Your task to perform on an android device: Open accessibility settings Image 0: 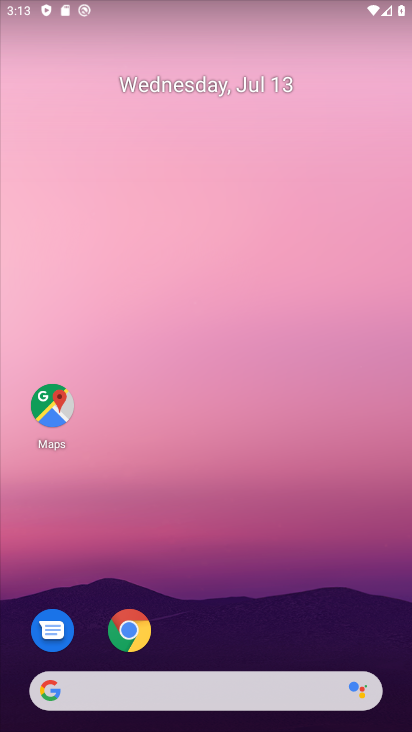
Step 0: drag from (220, 581) to (162, 46)
Your task to perform on an android device: Open accessibility settings Image 1: 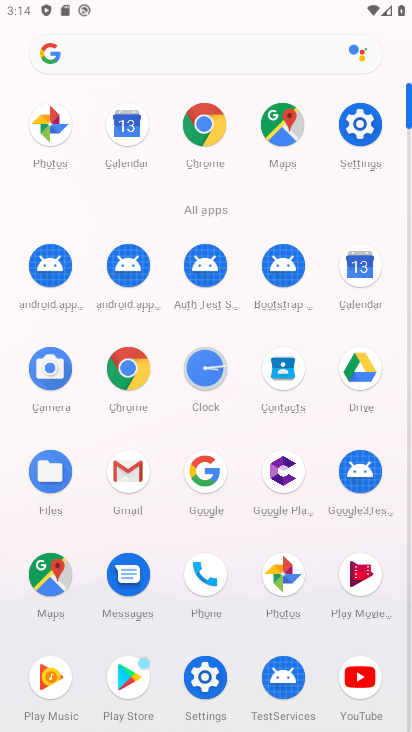
Step 1: click (362, 126)
Your task to perform on an android device: Open accessibility settings Image 2: 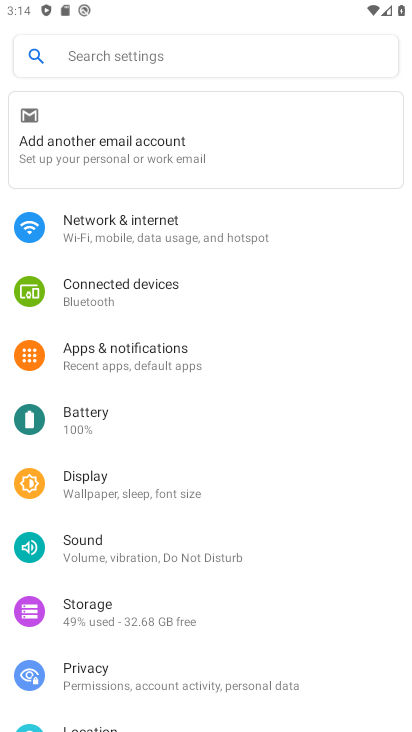
Step 2: drag from (262, 579) to (247, 273)
Your task to perform on an android device: Open accessibility settings Image 3: 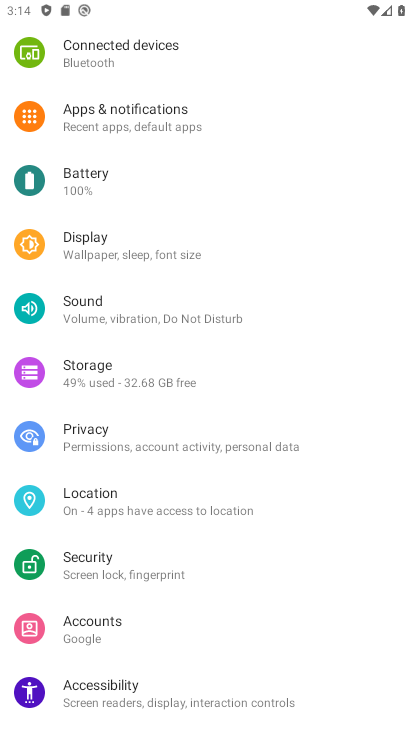
Step 3: click (109, 690)
Your task to perform on an android device: Open accessibility settings Image 4: 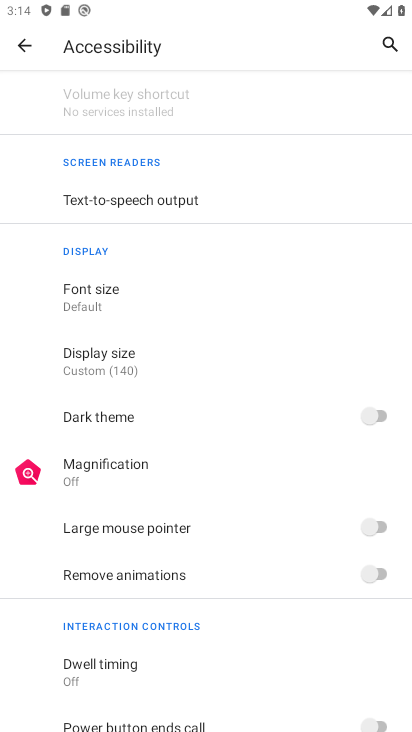
Step 4: task complete